Your task to perform on an android device: set the timer Image 0: 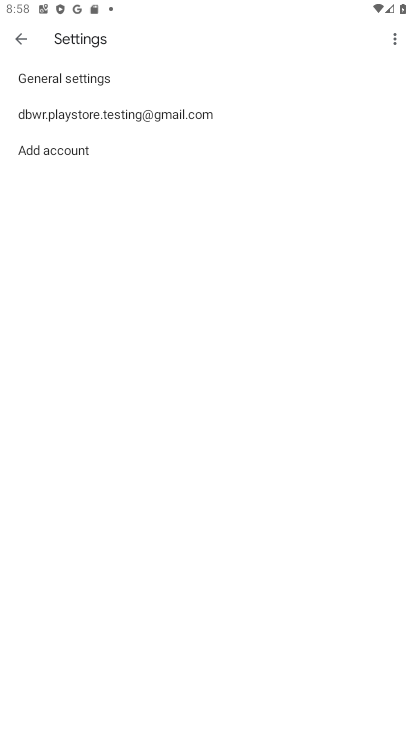
Step 0: press back button
Your task to perform on an android device: set the timer Image 1: 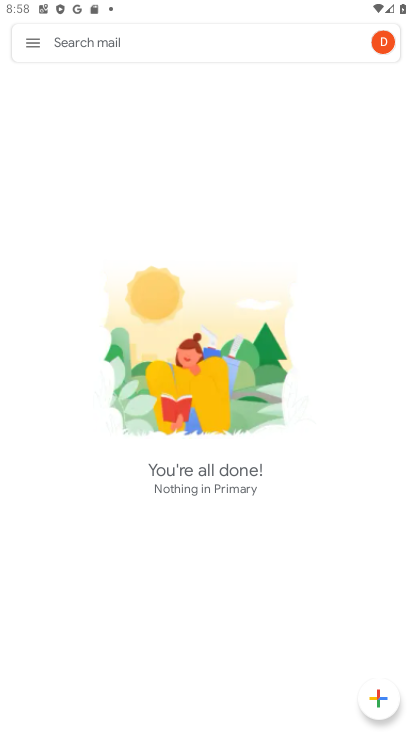
Step 1: press back button
Your task to perform on an android device: set the timer Image 2: 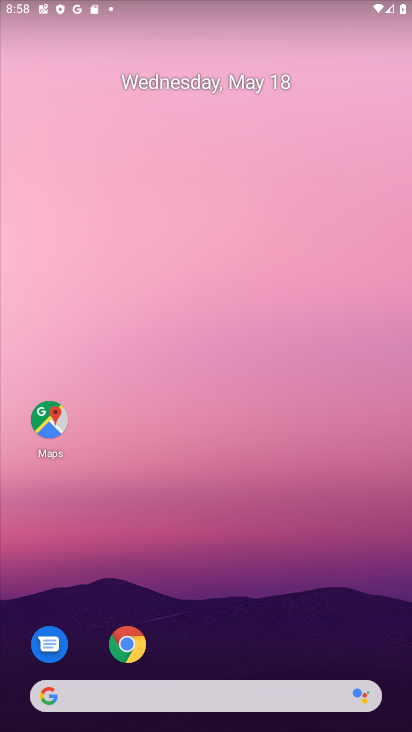
Step 2: drag from (243, 642) to (235, 146)
Your task to perform on an android device: set the timer Image 3: 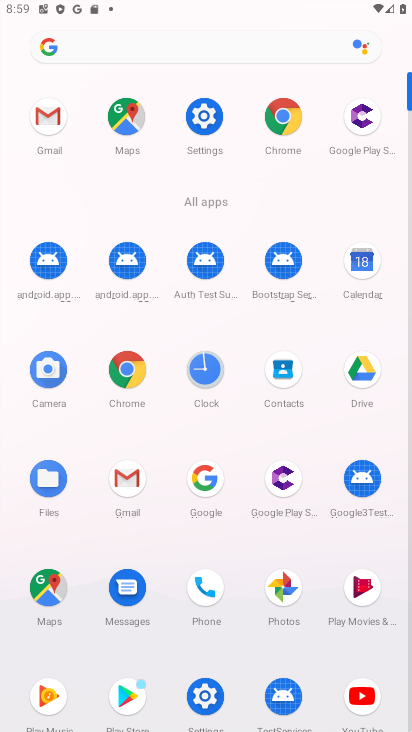
Step 3: click (206, 368)
Your task to perform on an android device: set the timer Image 4: 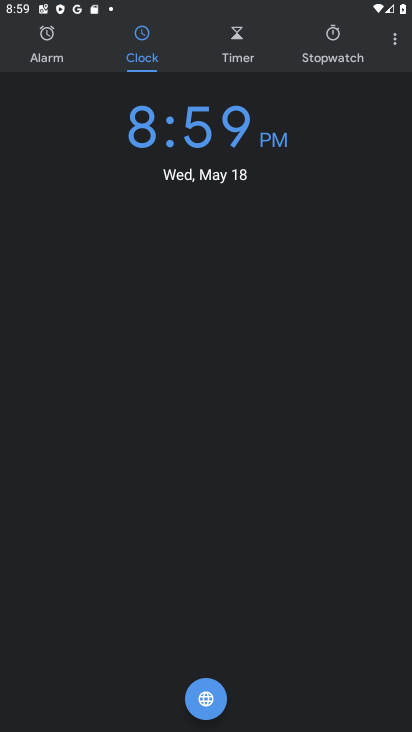
Step 4: click (243, 41)
Your task to perform on an android device: set the timer Image 5: 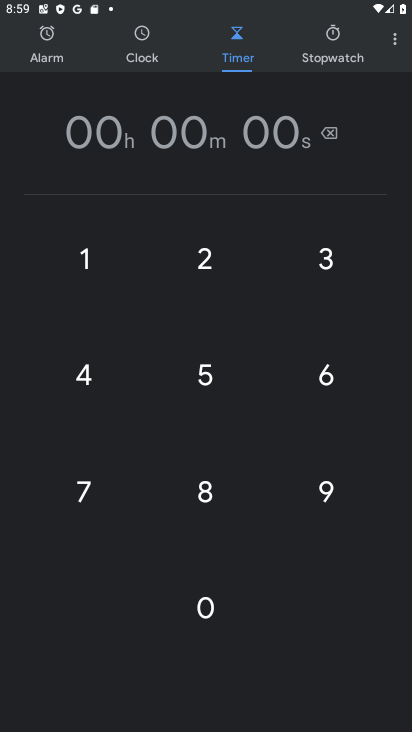
Step 5: type "123"
Your task to perform on an android device: set the timer Image 6: 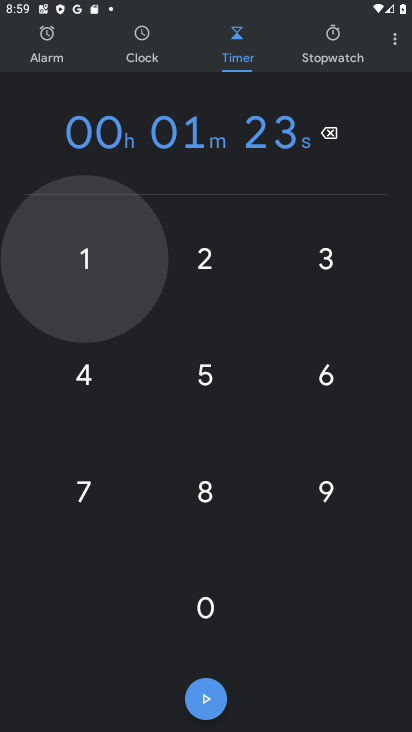
Step 6: click (203, 699)
Your task to perform on an android device: set the timer Image 7: 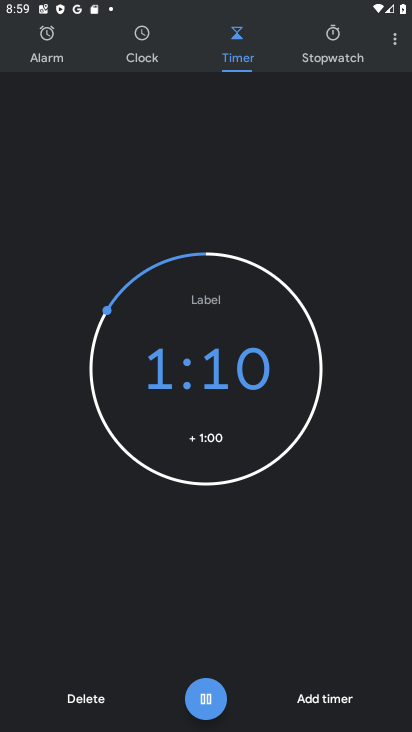
Step 7: click (203, 699)
Your task to perform on an android device: set the timer Image 8: 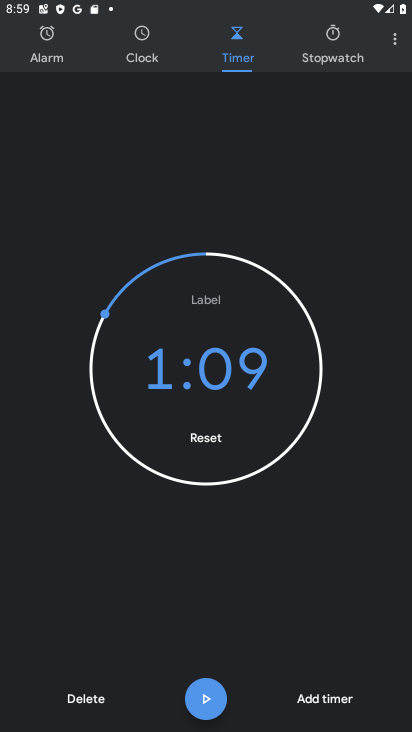
Step 8: task complete